Your task to perform on an android device: turn smart compose on in the gmail app Image 0: 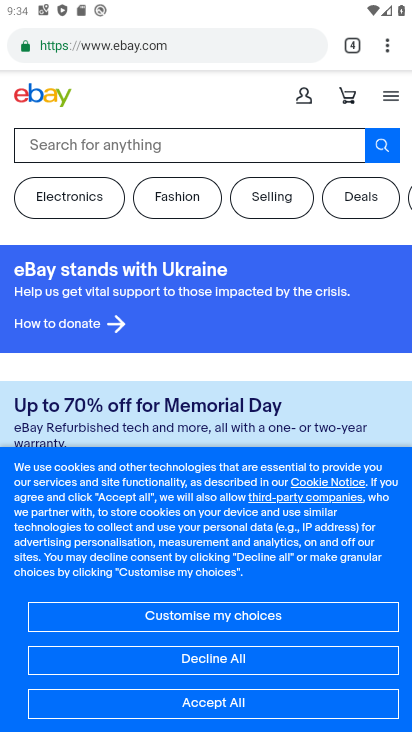
Step 0: press home button
Your task to perform on an android device: turn smart compose on in the gmail app Image 1: 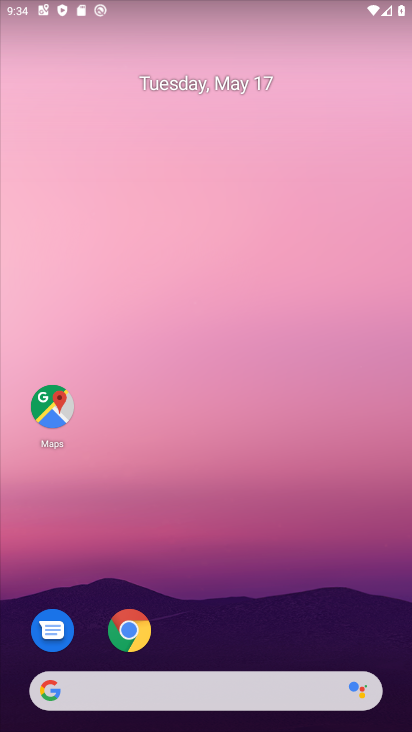
Step 1: drag from (279, 620) to (251, 218)
Your task to perform on an android device: turn smart compose on in the gmail app Image 2: 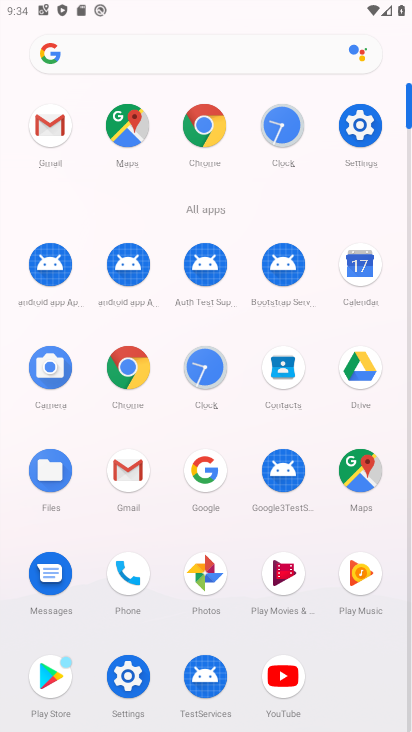
Step 2: click (50, 132)
Your task to perform on an android device: turn smart compose on in the gmail app Image 3: 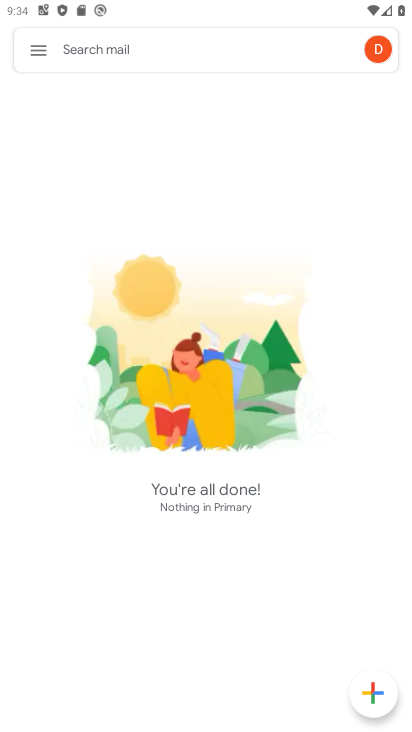
Step 3: click (41, 44)
Your task to perform on an android device: turn smart compose on in the gmail app Image 4: 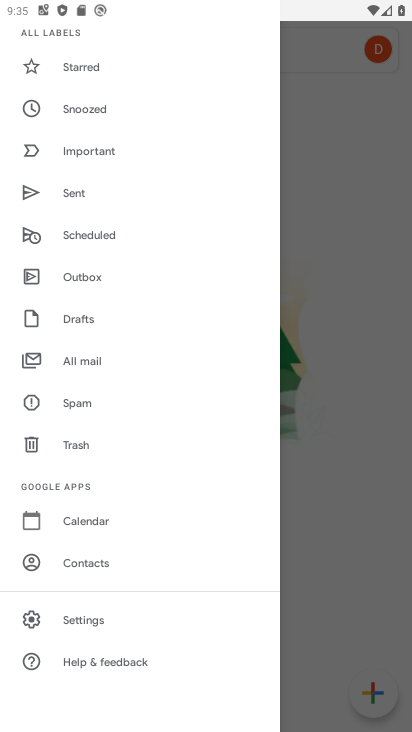
Step 4: click (92, 617)
Your task to perform on an android device: turn smart compose on in the gmail app Image 5: 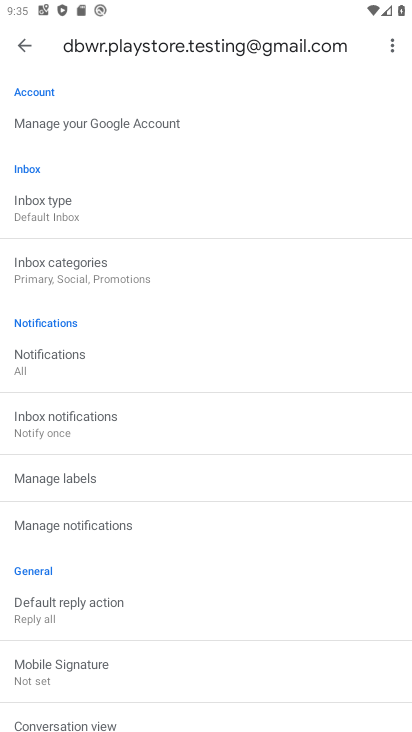
Step 5: task complete